Your task to perform on an android device: Clear the shopping cart on amazon. Add "logitech g903" to the cart on amazon, then select checkout. Image 0: 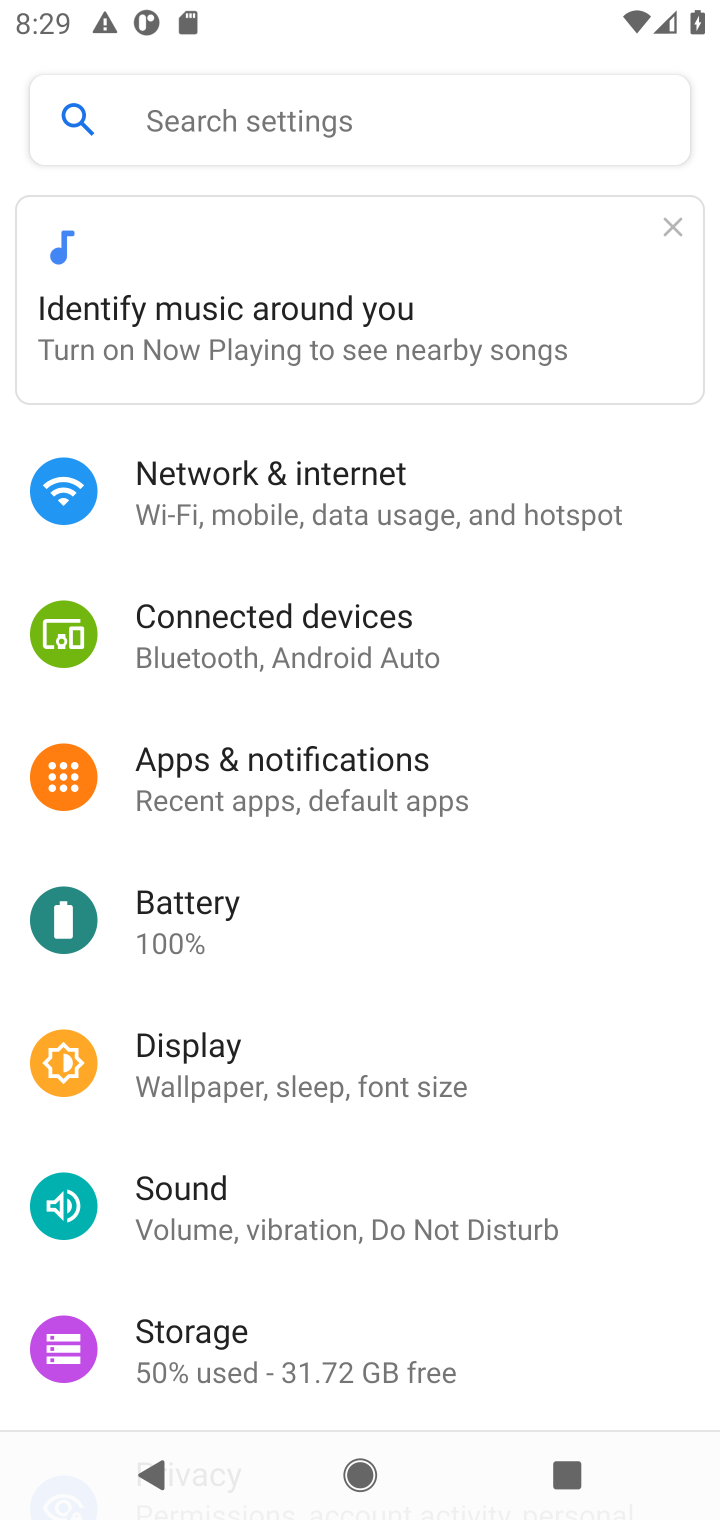
Step 0: press home button
Your task to perform on an android device: Clear the shopping cart on amazon. Add "logitech g903" to the cart on amazon, then select checkout. Image 1: 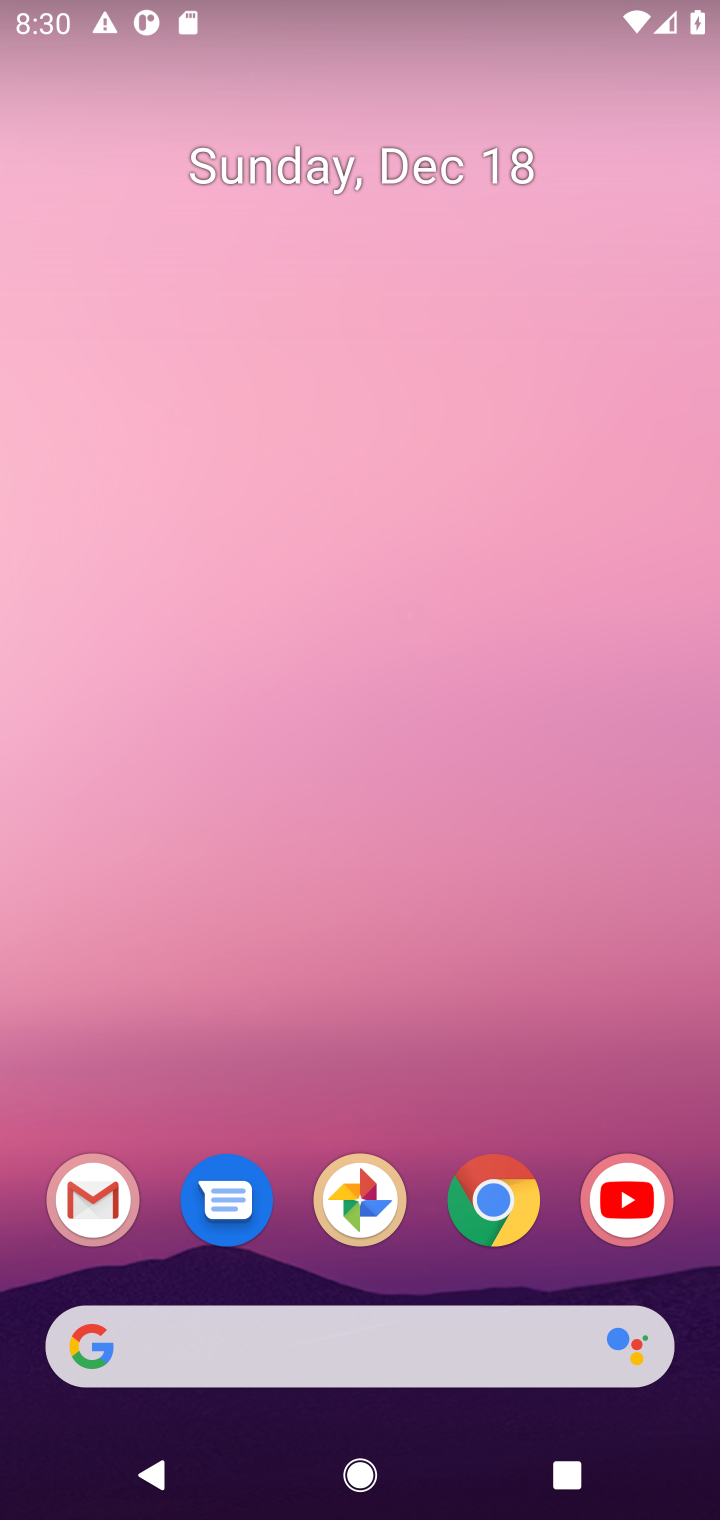
Step 1: click (483, 1213)
Your task to perform on an android device: Clear the shopping cart on amazon. Add "logitech g903" to the cart on amazon, then select checkout. Image 2: 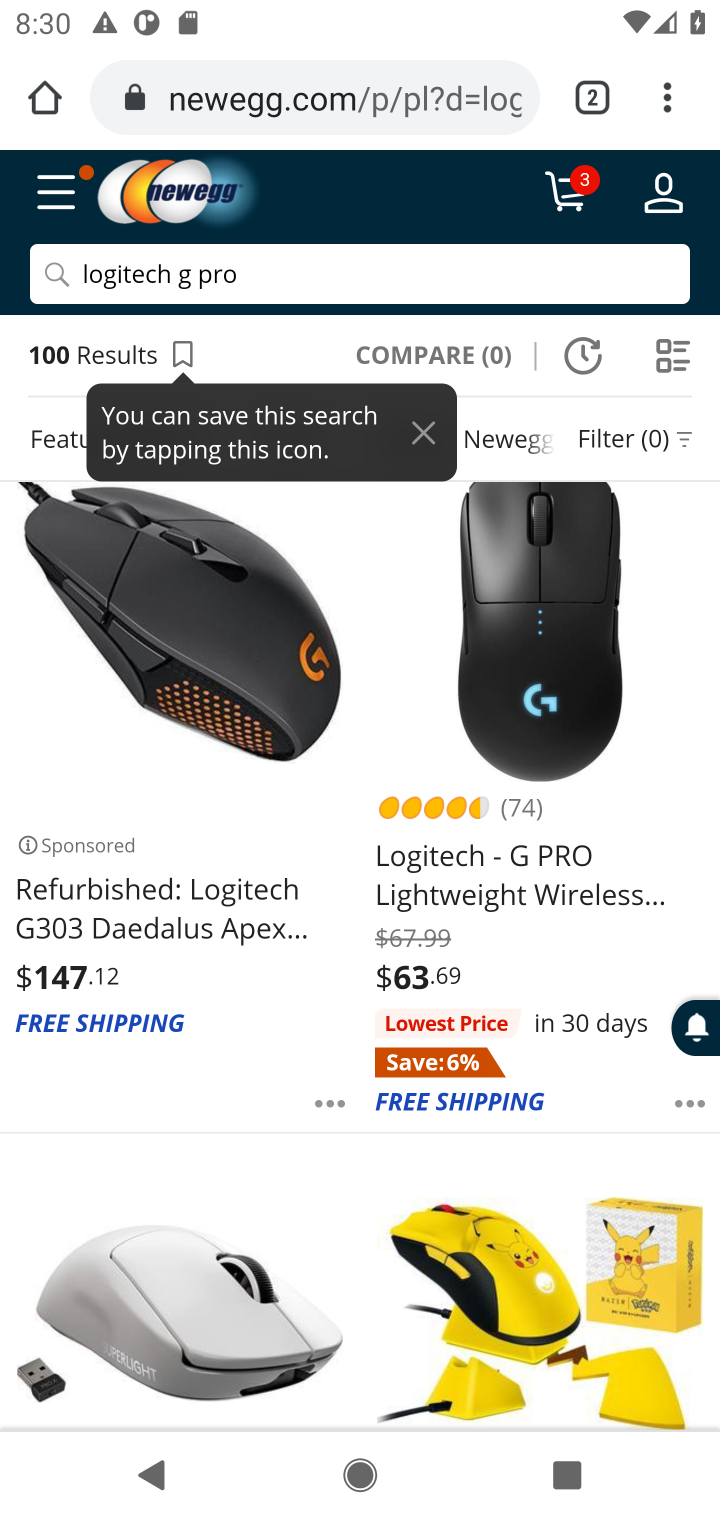
Step 2: click (305, 101)
Your task to perform on an android device: Clear the shopping cart on amazon. Add "logitech g903" to the cart on amazon, then select checkout. Image 3: 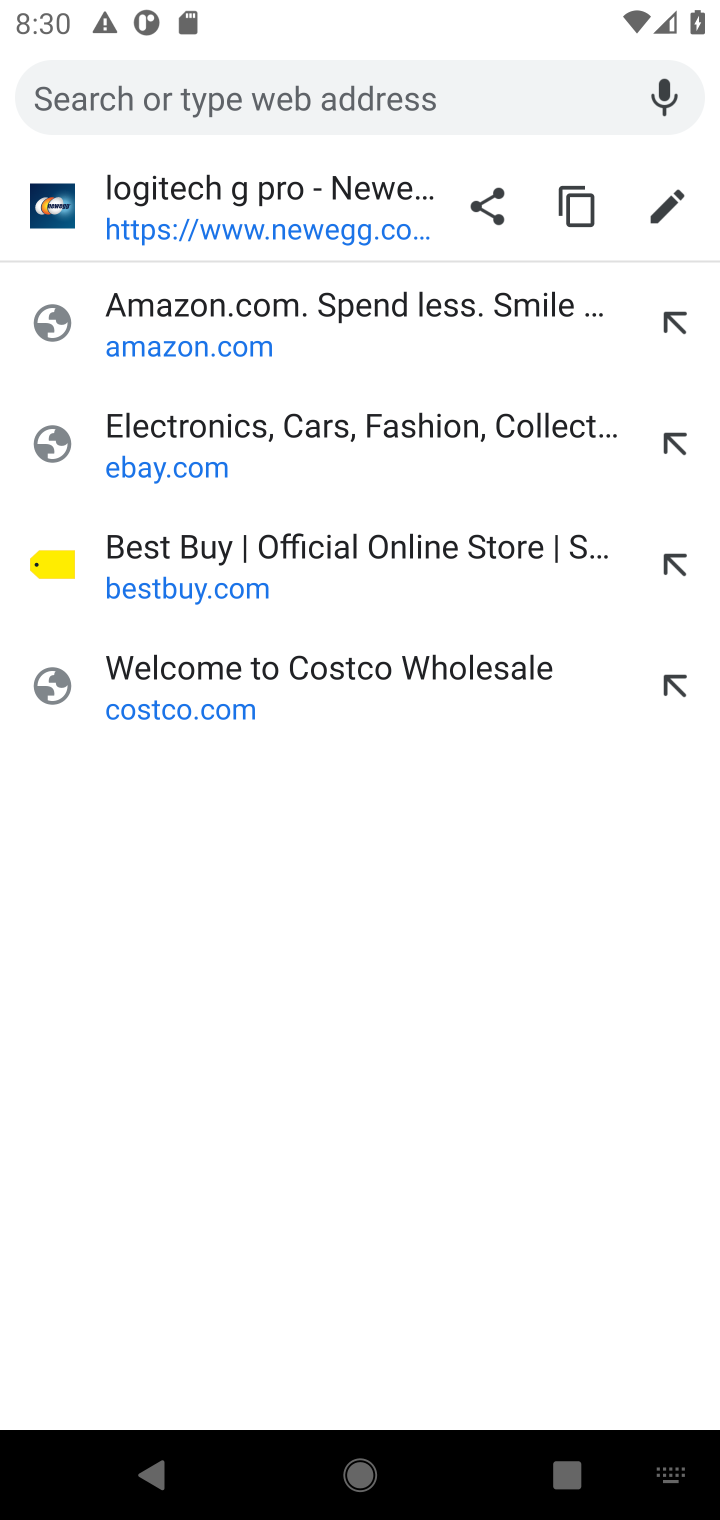
Step 3: click (174, 339)
Your task to perform on an android device: Clear the shopping cart on amazon. Add "logitech g903" to the cart on amazon, then select checkout. Image 4: 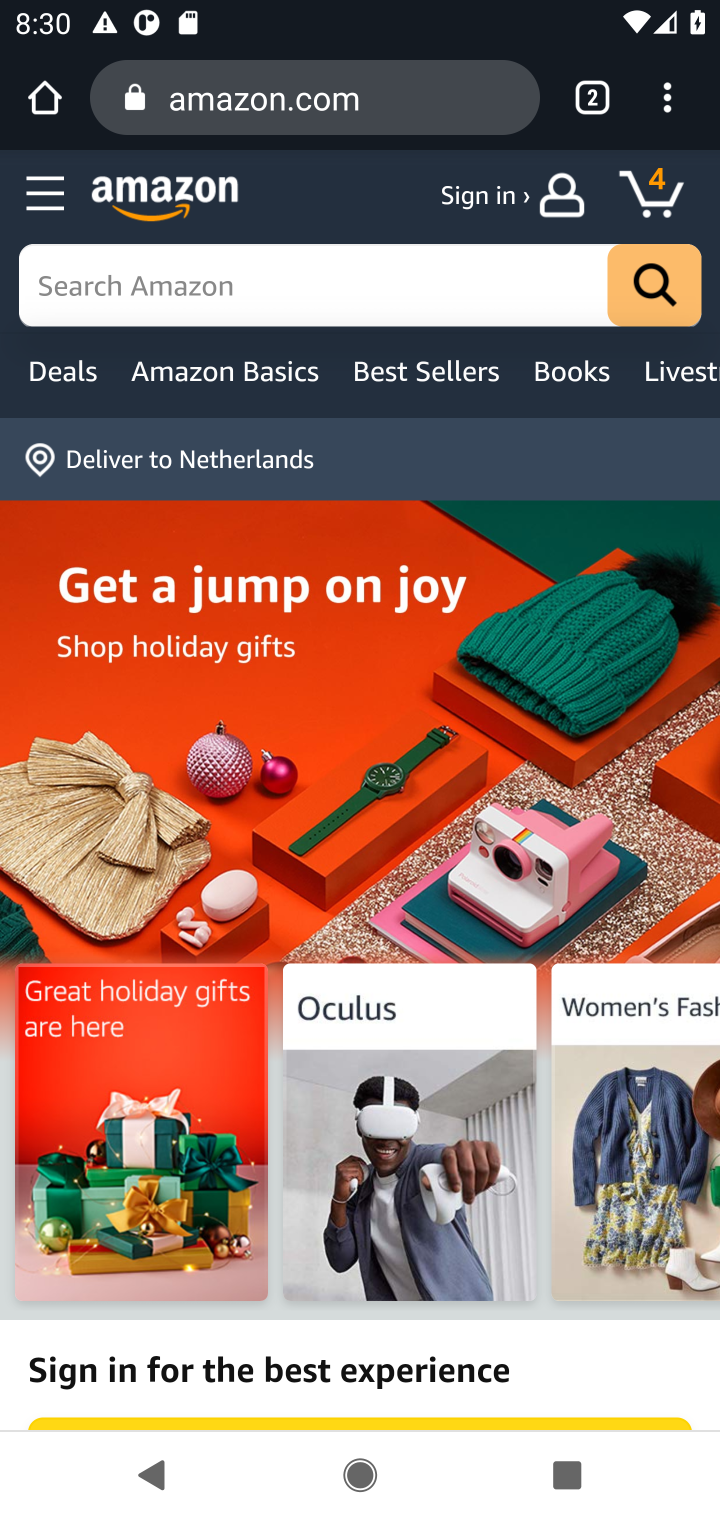
Step 4: click (664, 190)
Your task to perform on an android device: Clear the shopping cart on amazon. Add "logitech g903" to the cart on amazon, then select checkout. Image 5: 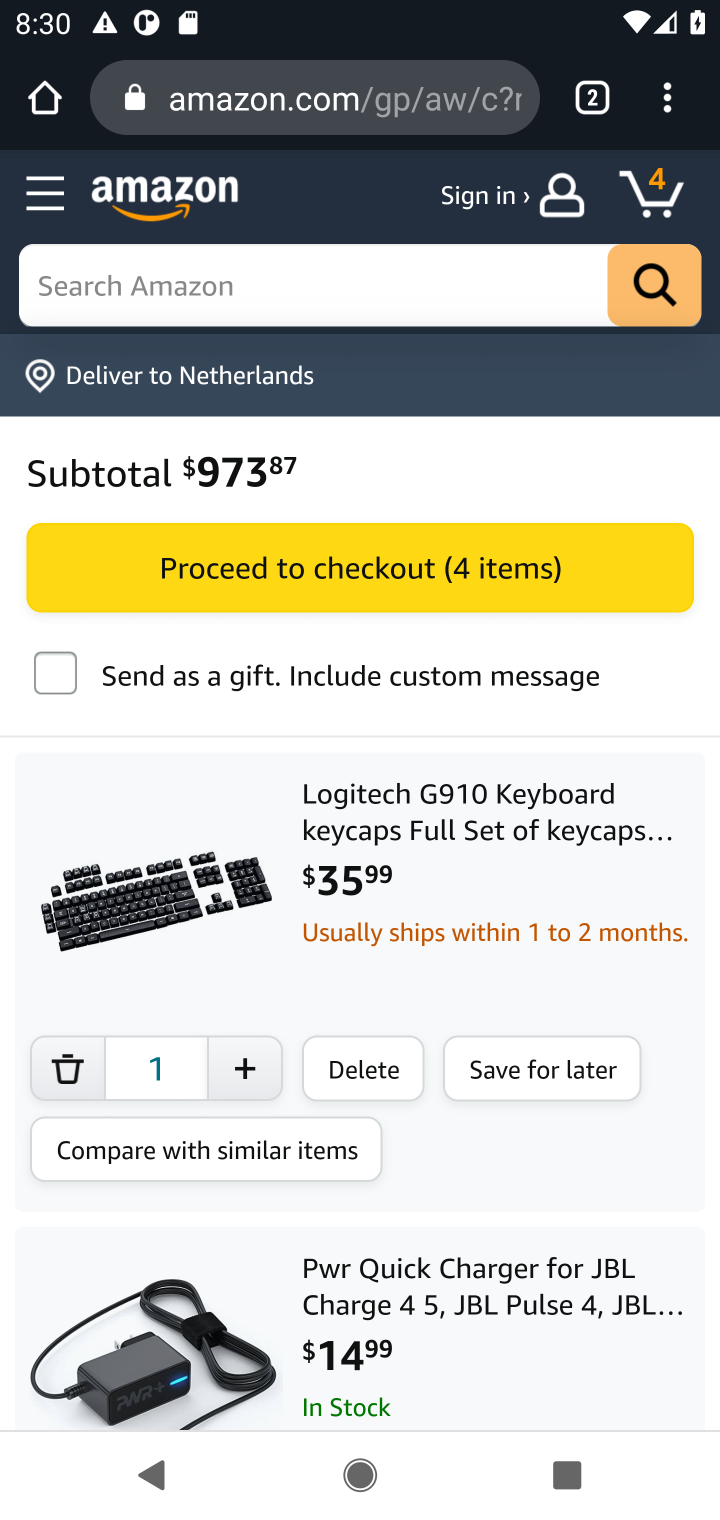
Step 5: click (348, 1065)
Your task to perform on an android device: Clear the shopping cart on amazon. Add "logitech g903" to the cart on amazon, then select checkout. Image 6: 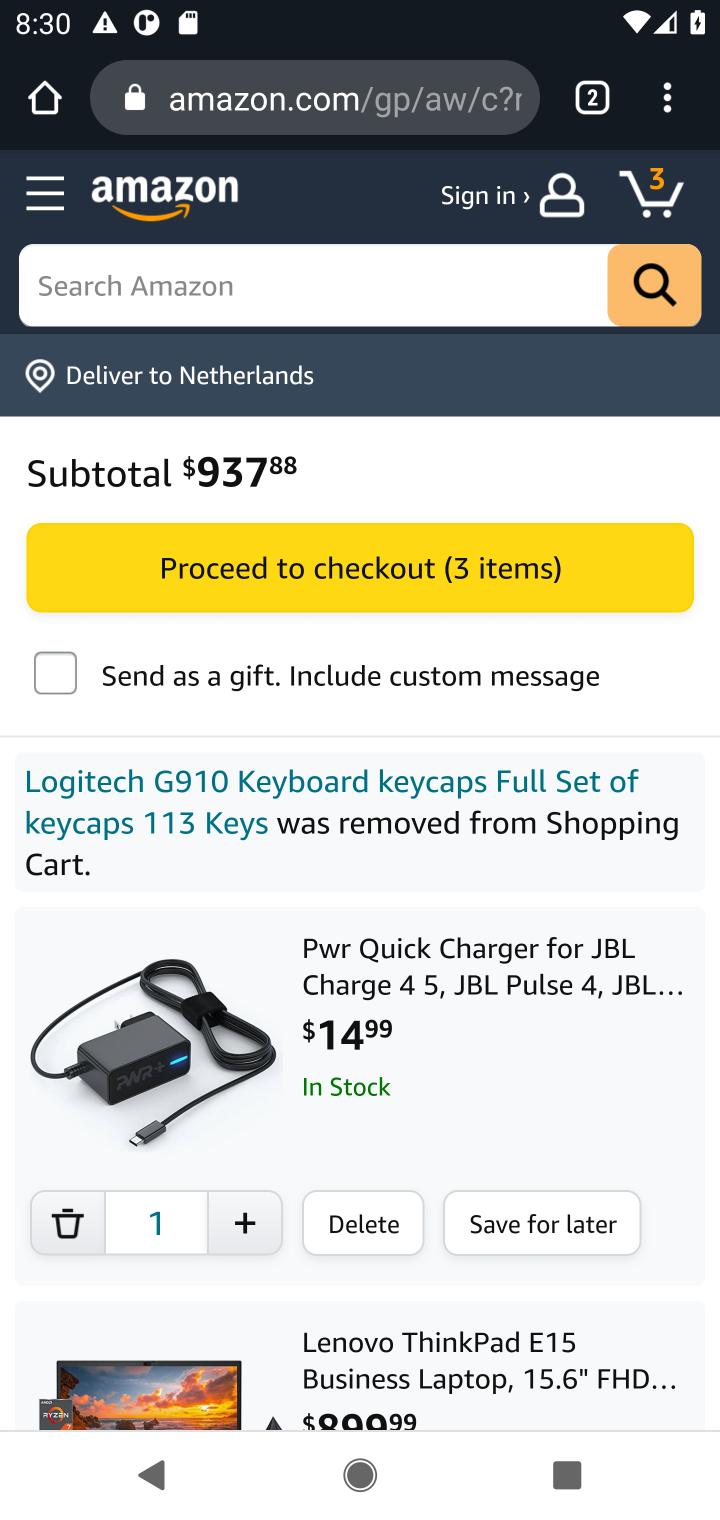
Step 6: click (350, 1232)
Your task to perform on an android device: Clear the shopping cart on amazon. Add "logitech g903" to the cart on amazon, then select checkout. Image 7: 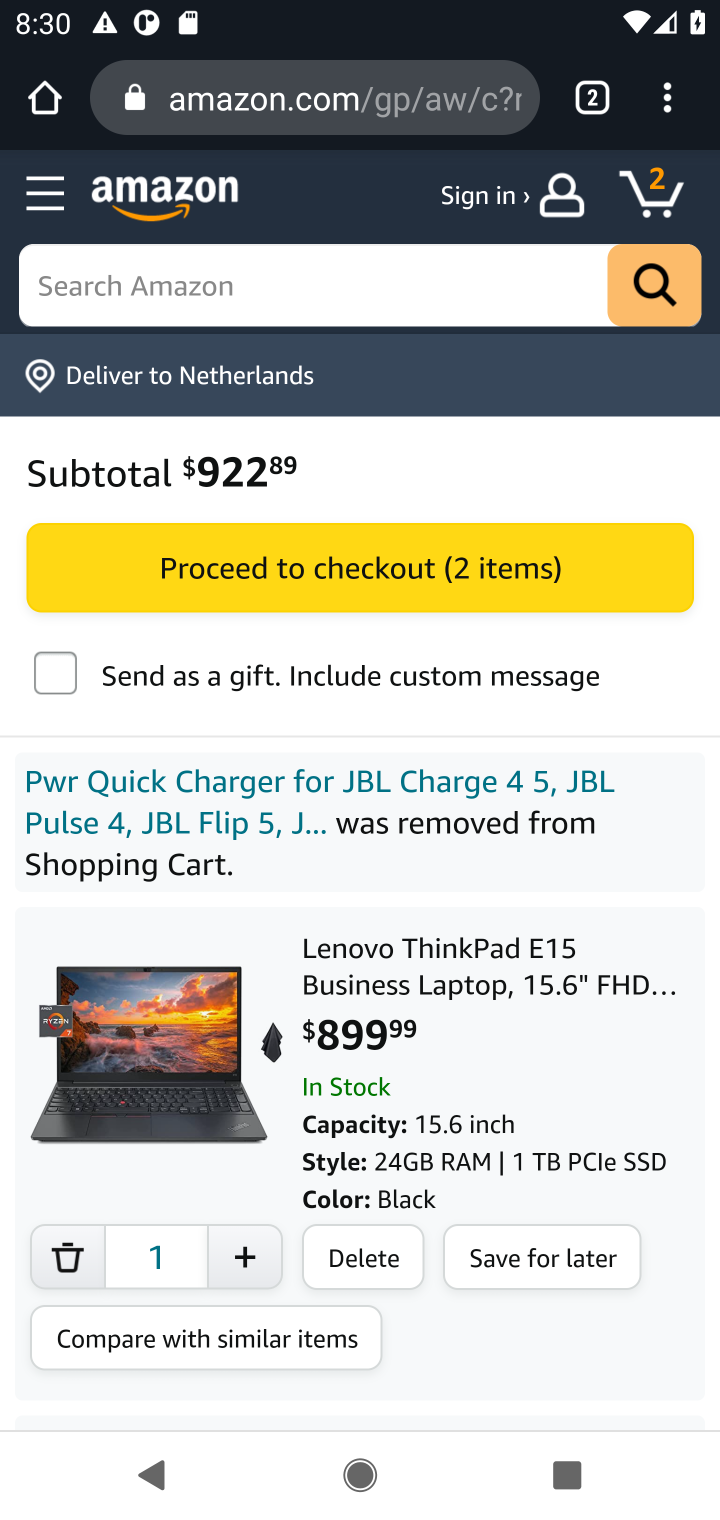
Step 7: click (361, 1249)
Your task to perform on an android device: Clear the shopping cart on amazon. Add "logitech g903" to the cart on amazon, then select checkout. Image 8: 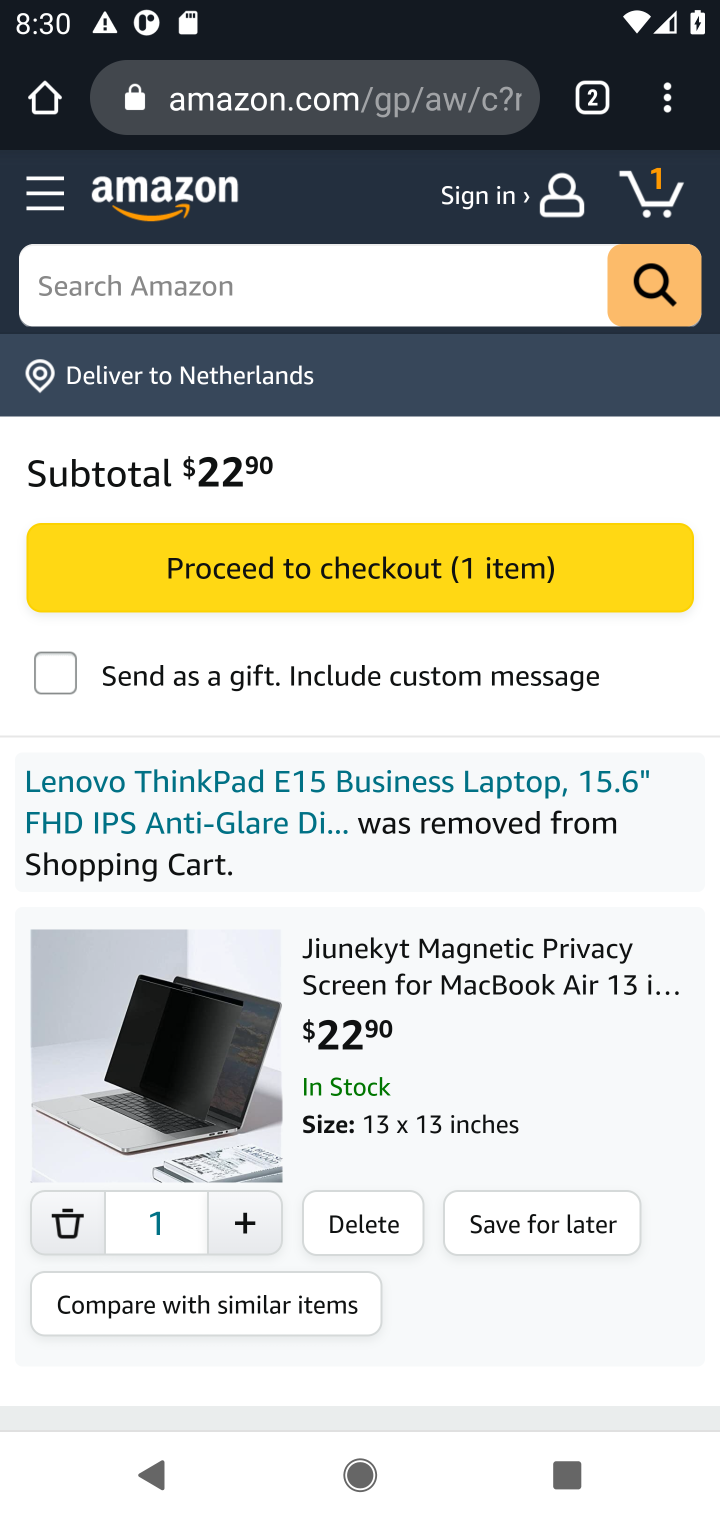
Step 8: click (361, 1249)
Your task to perform on an android device: Clear the shopping cart on amazon. Add "logitech g903" to the cart on amazon, then select checkout. Image 9: 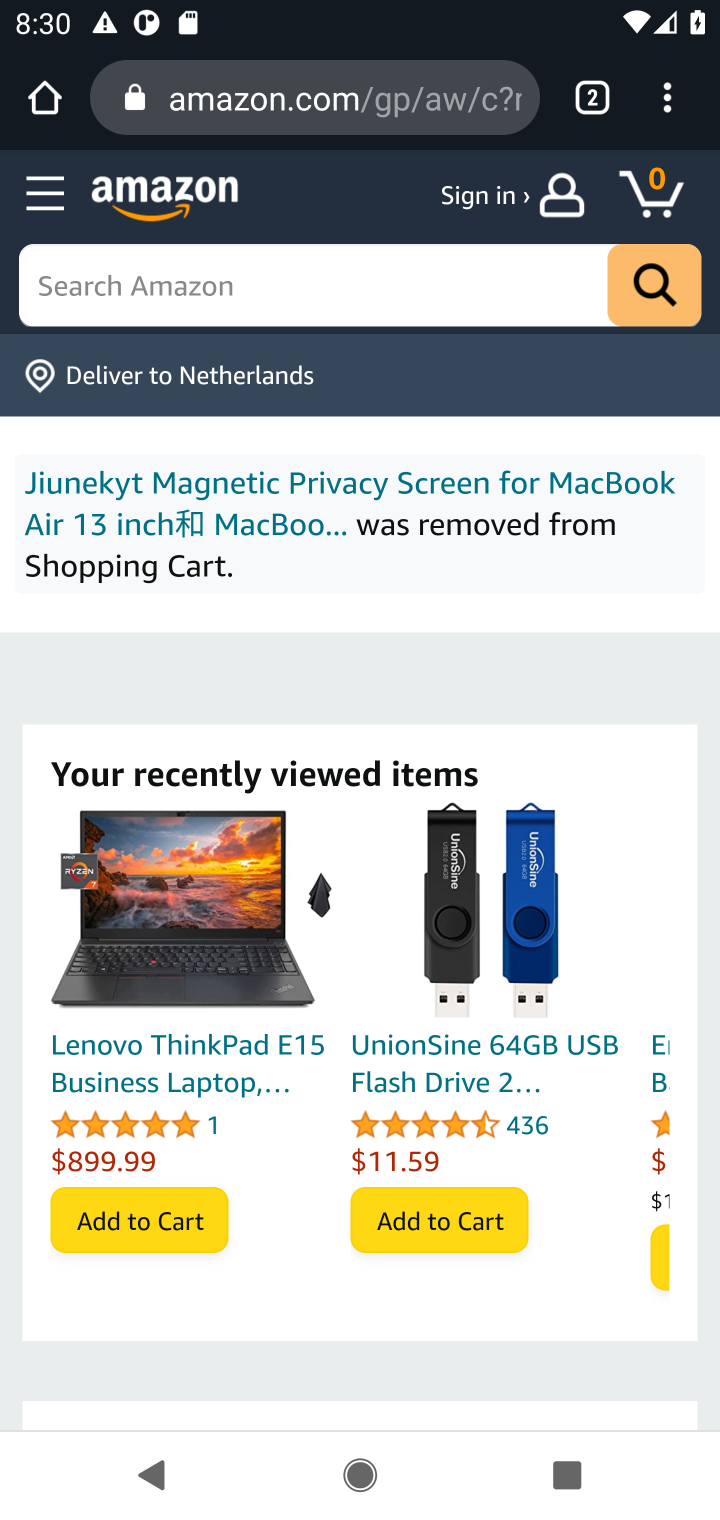
Step 9: click (139, 295)
Your task to perform on an android device: Clear the shopping cart on amazon. Add "logitech g903" to the cart on amazon, then select checkout. Image 10: 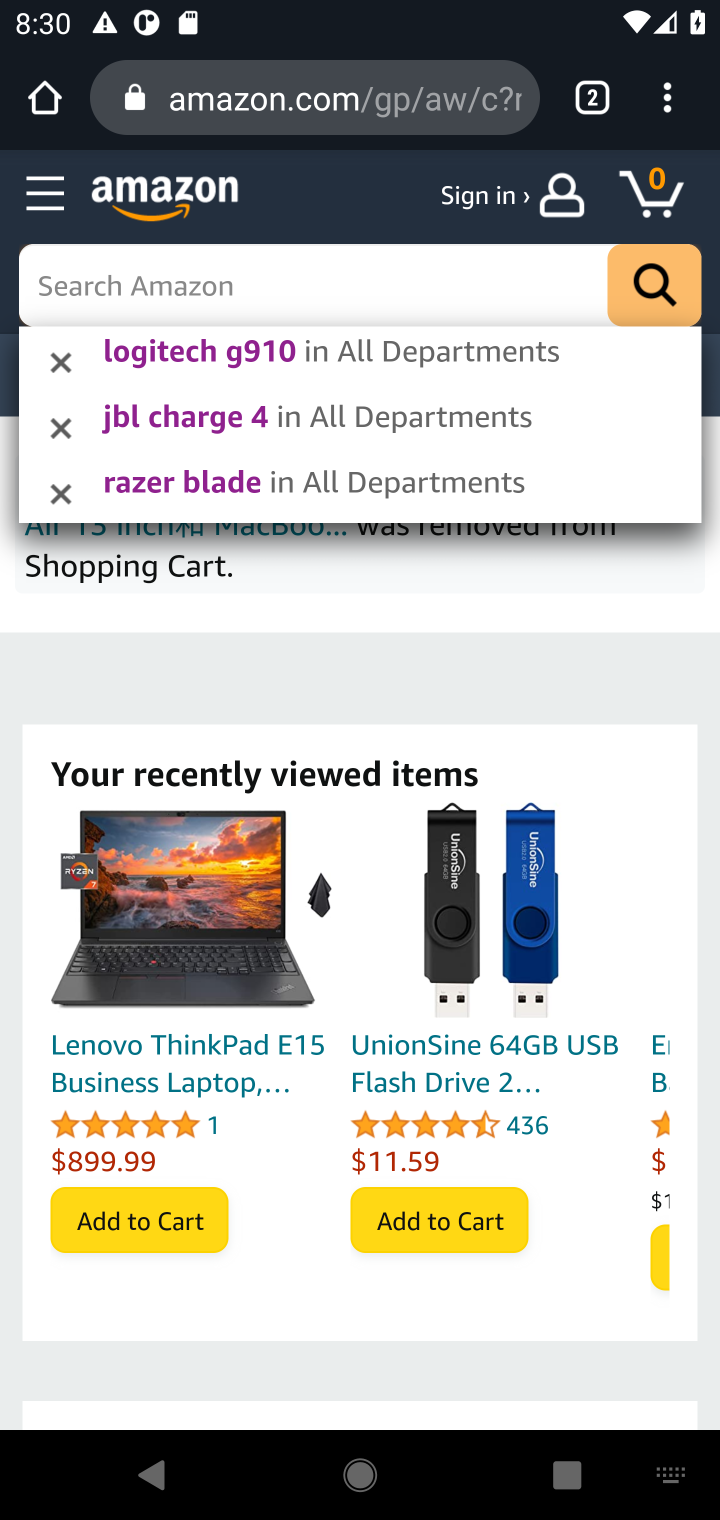
Step 10: type "logitech g903"
Your task to perform on an android device: Clear the shopping cart on amazon. Add "logitech g903" to the cart on amazon, then select checkout. Image 11: 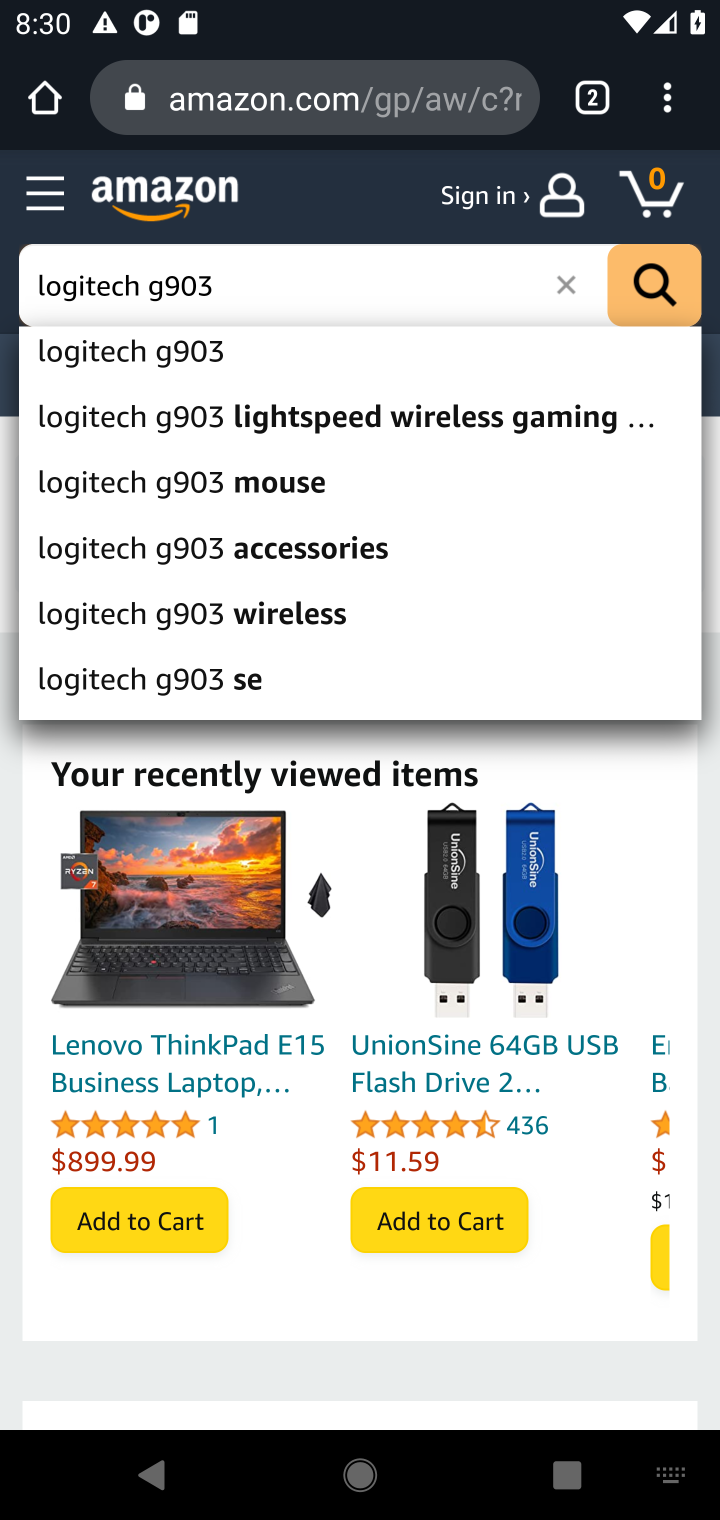
Step 11: click (152, 360)
Your task to perform on an android device: Clear the shopping cart on amazon. Add "logitech g903" to the cart on amazon, then select checkout. Image 12: 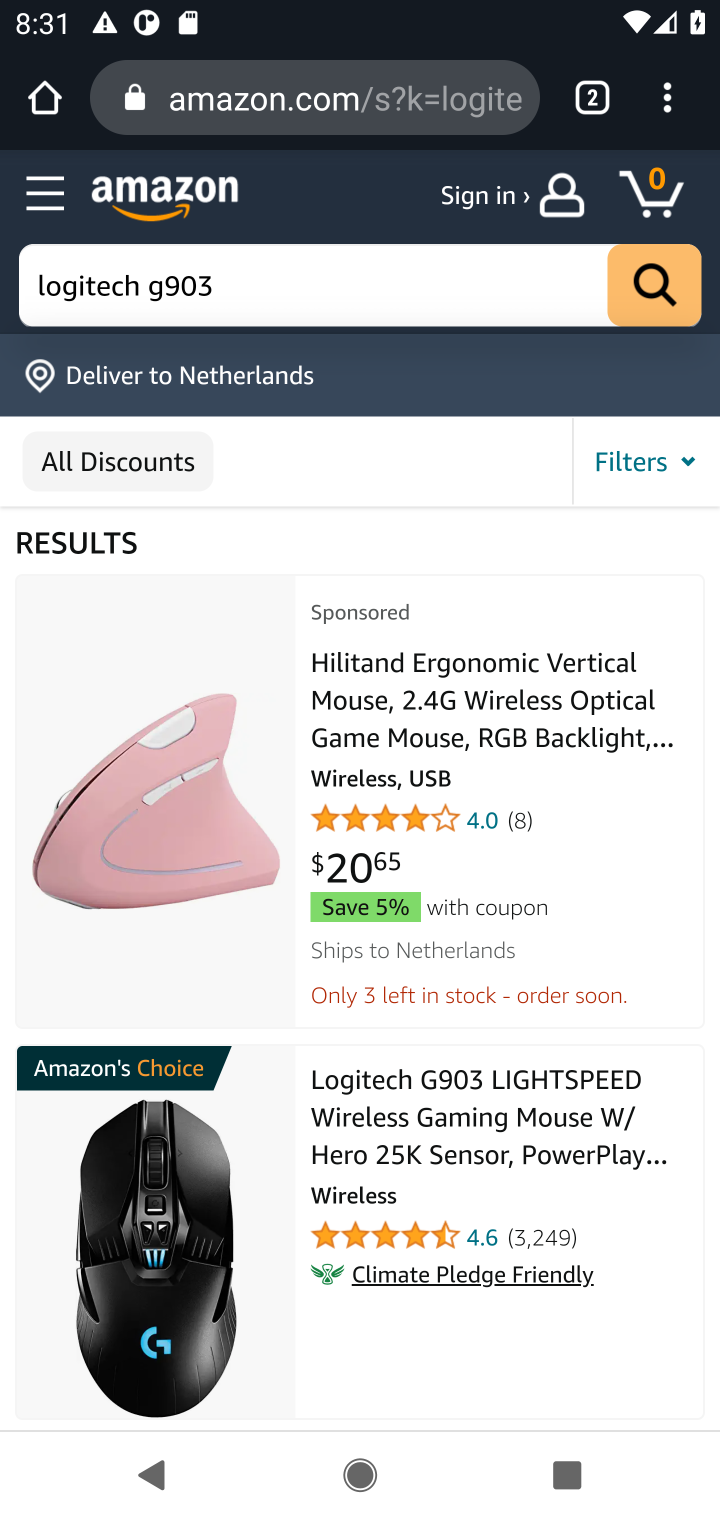
Step 12: drag from (351, 1104) to (323, 591)
Your task to perform on an android device: Clear the shopping cart on amazon. Add "logitech g903" to the cart on amazon, then select checkout. Image 13: 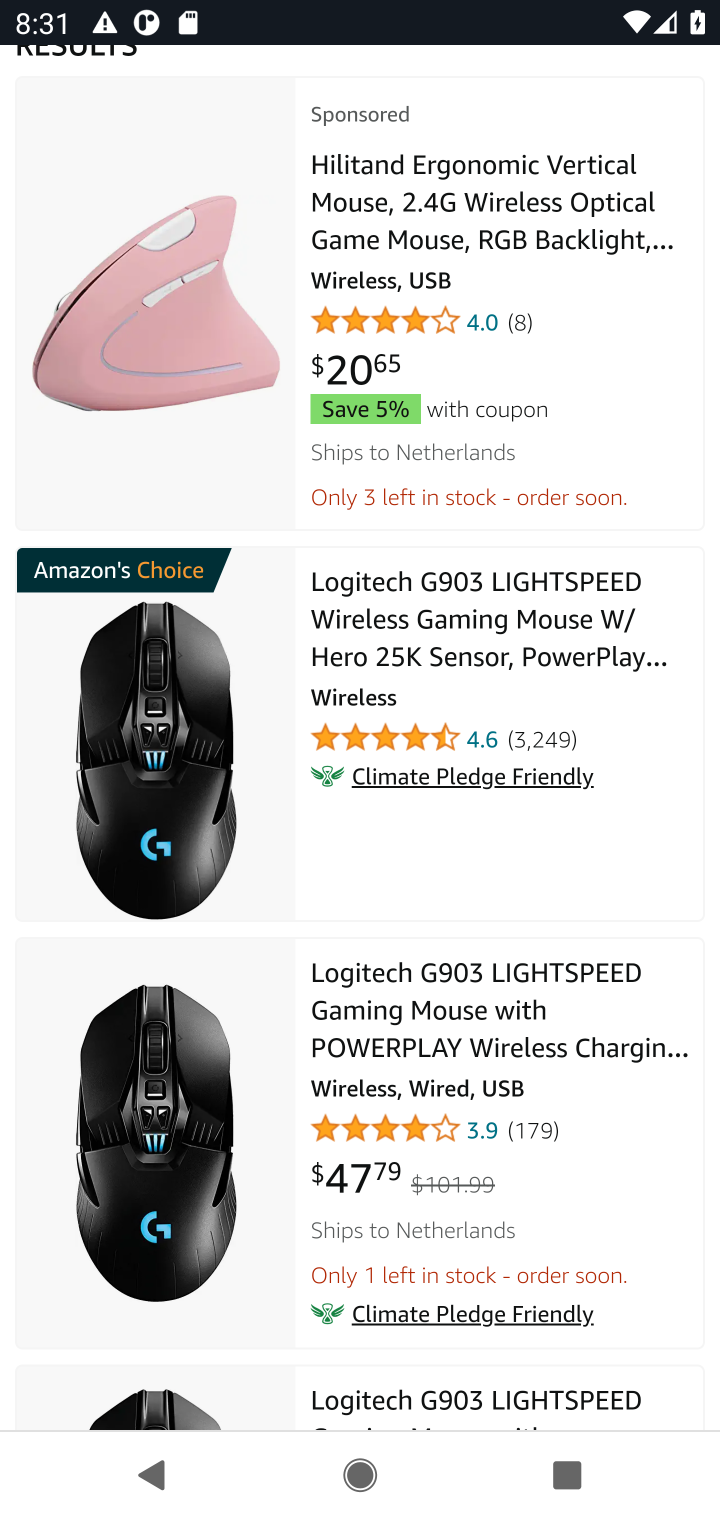
Step 13: click (363, 1040)
Your task to perform on an android device: Clear the shopping cart on amazon. Add "logitech g903" to the cart on amazon, then select checkout. Image 14: 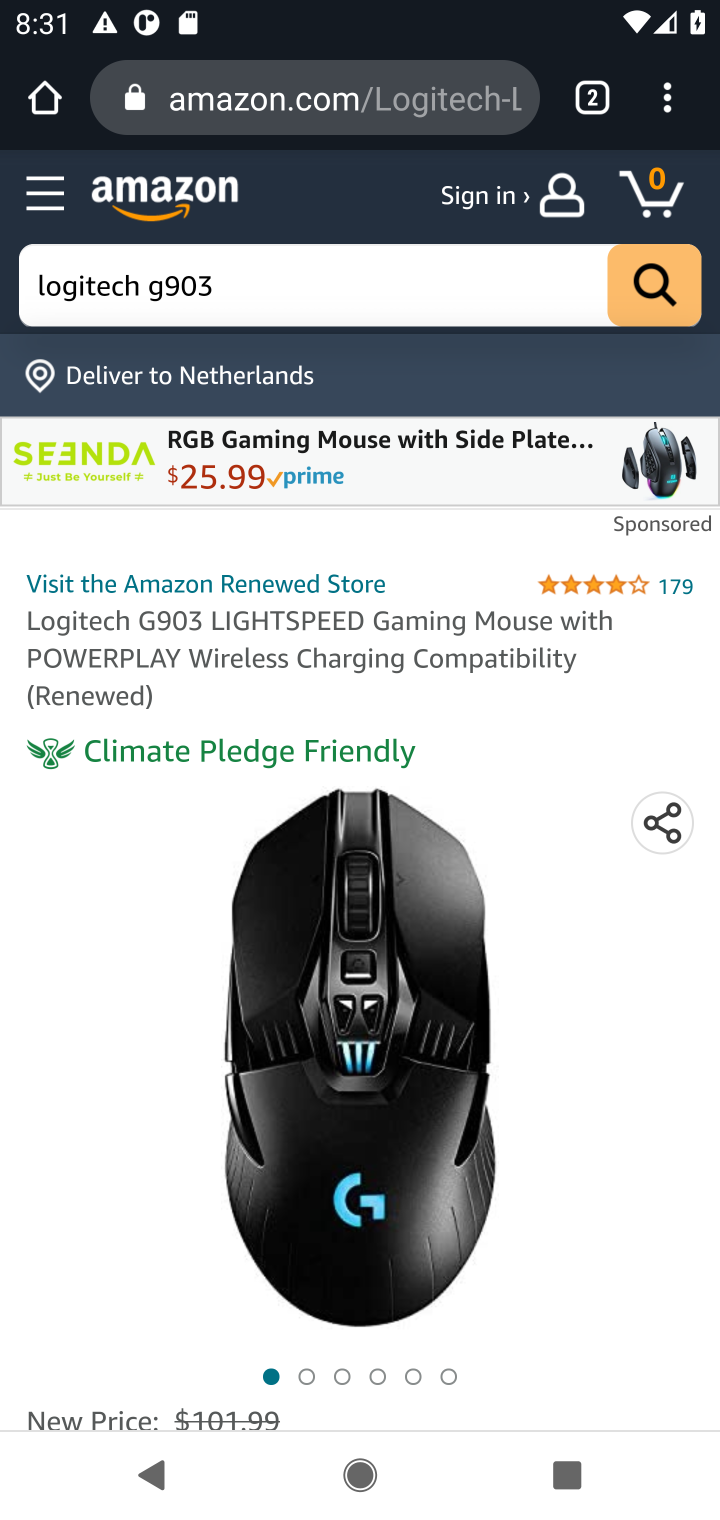
Step 14: drag from (354, 1120) to (342, 466)
Your task to perform on an android device: Clear the shopping cart on amazon. Add "logitech g903" to the cart on amazon, then select checkout. Image 15: 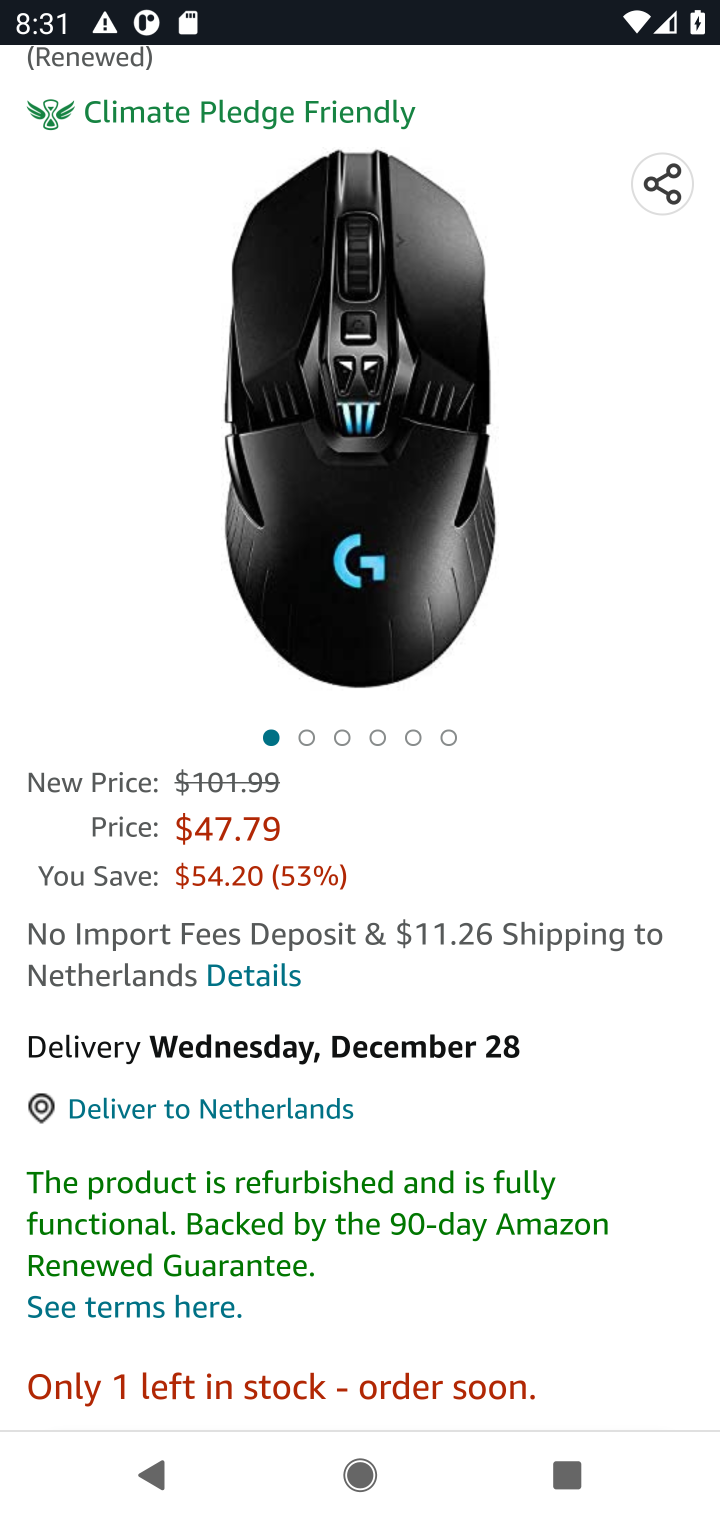
Step 15: drag from (278, 1004) to (293, 372)
Your task to perform on an android device: Clear the shopping cart on amazon. Add "logitech g903" to the cart on amazon, then select checkout. Image 16: 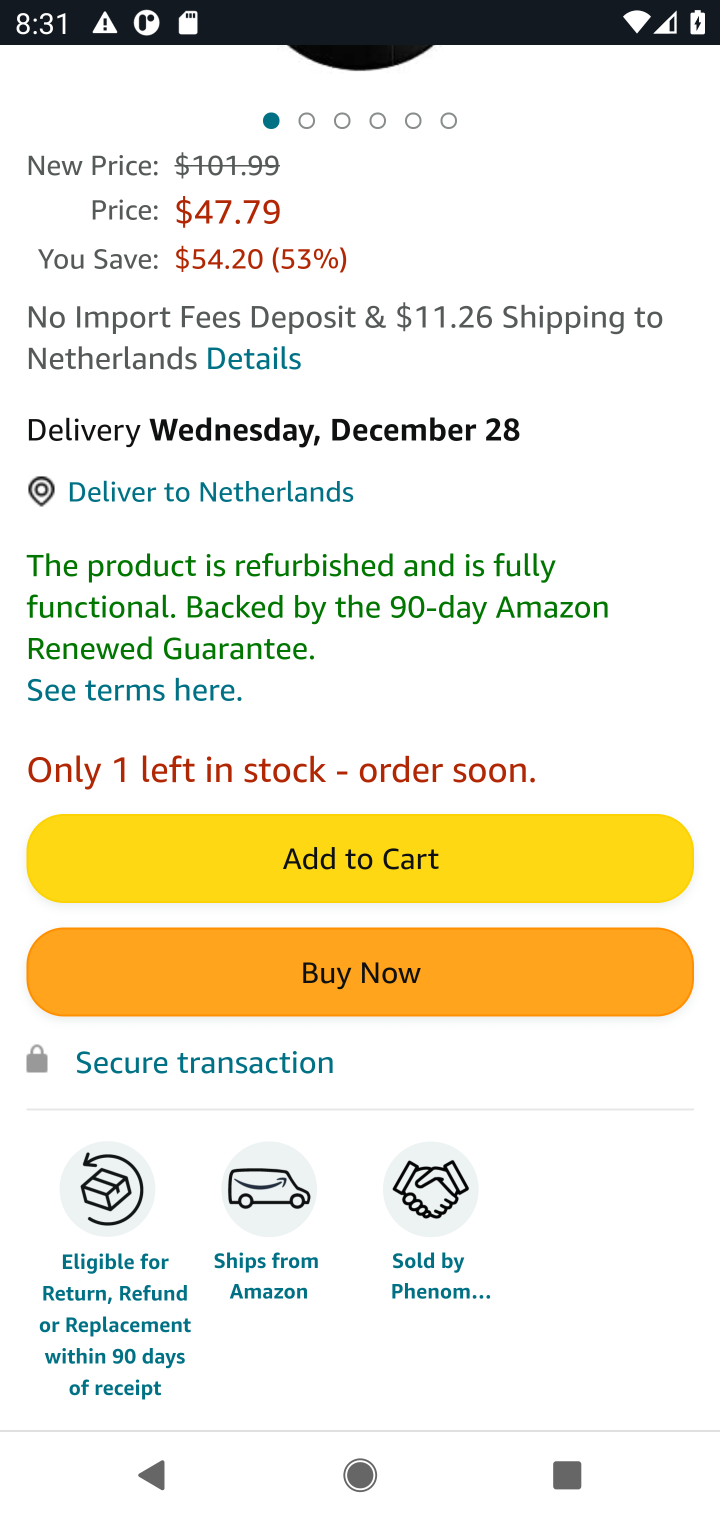
Step 16: click (273, 850)
Your task to perform on an android device: Clear the shopping cart on amazon. Add "logitech g903" to the cart on amazon, then select checkout. Image 17: 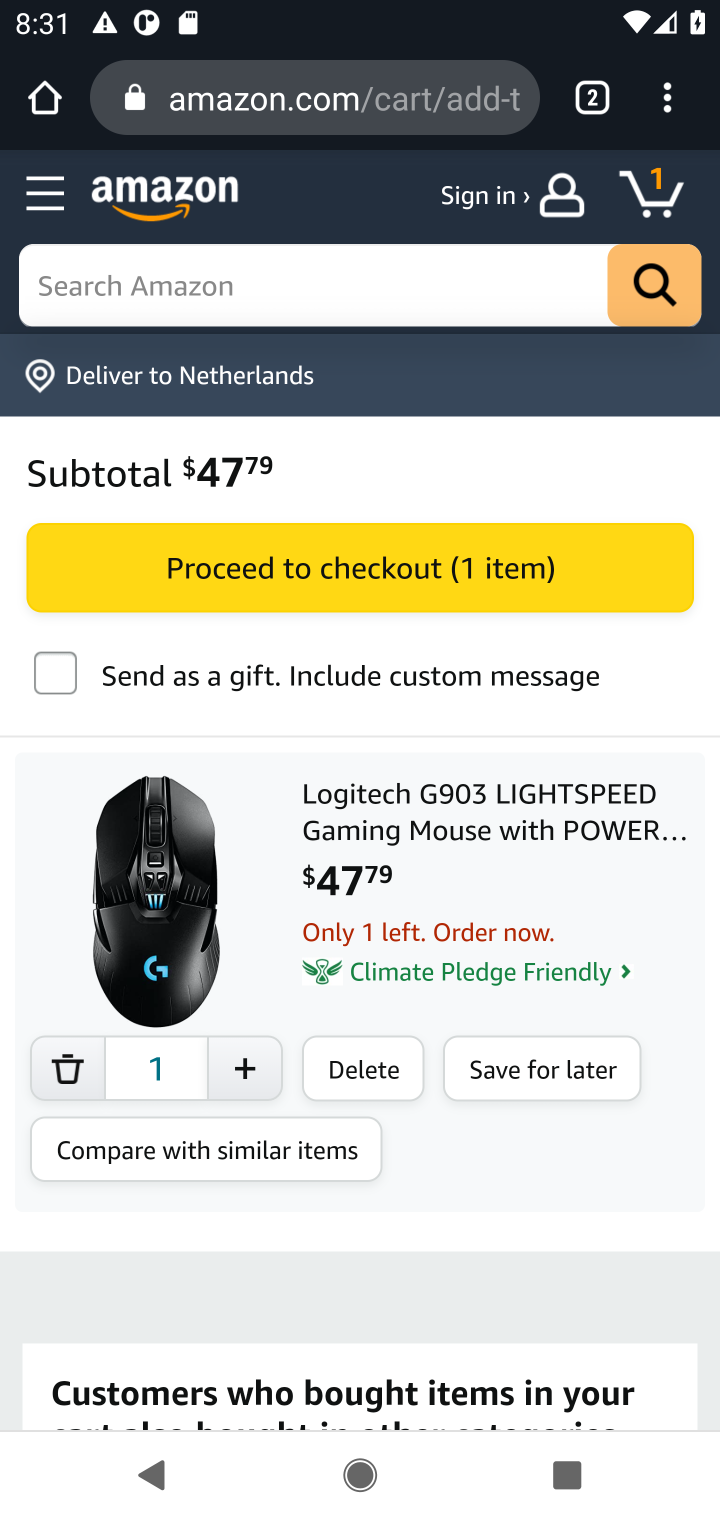
Step 17: click (307, 567)
Your task to perform on an android device: Clear the shopping cart on amazon. Add "logitech g903" to the cart on amazon, then select checkout. Image 18: 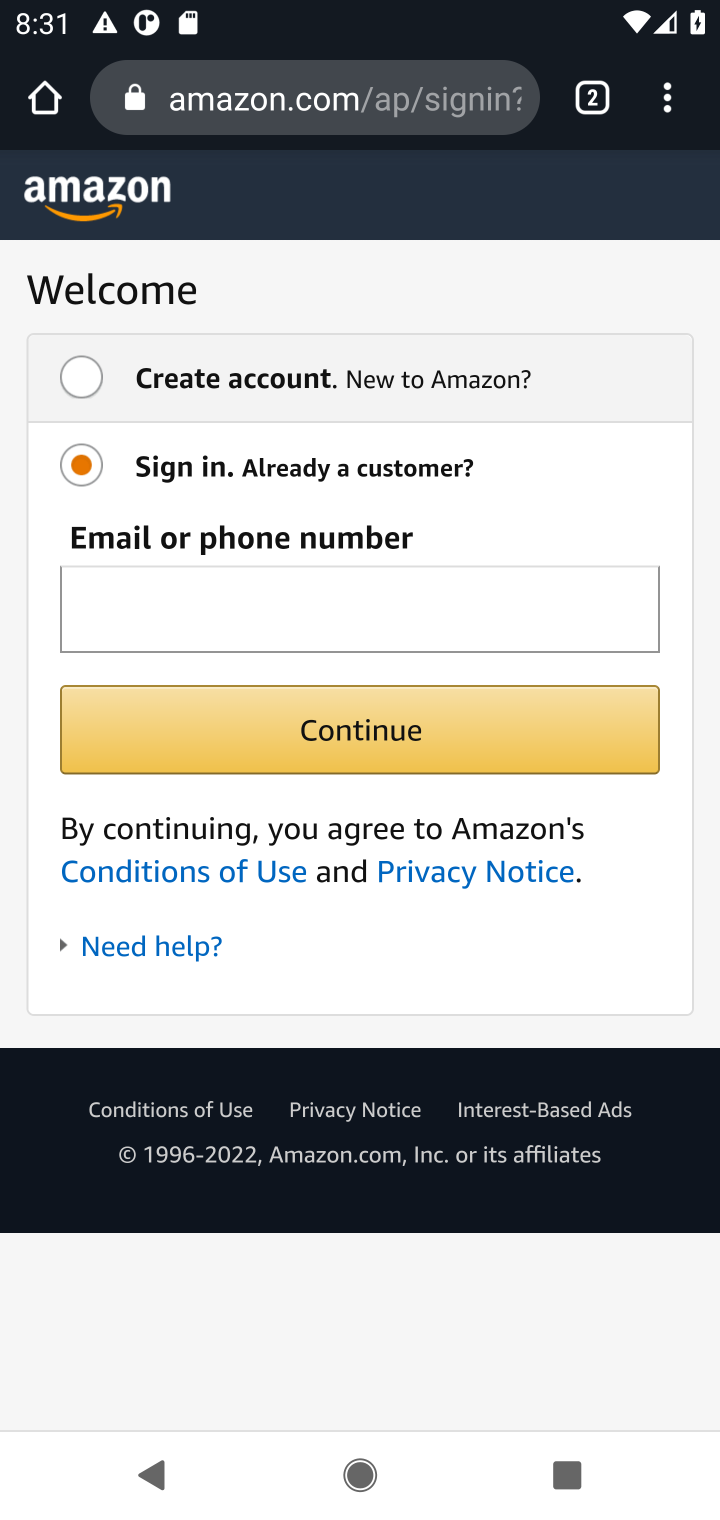
Step 18: task complete